Your task to perform on an android device: What's the weather going to be this weekend? Image 0: 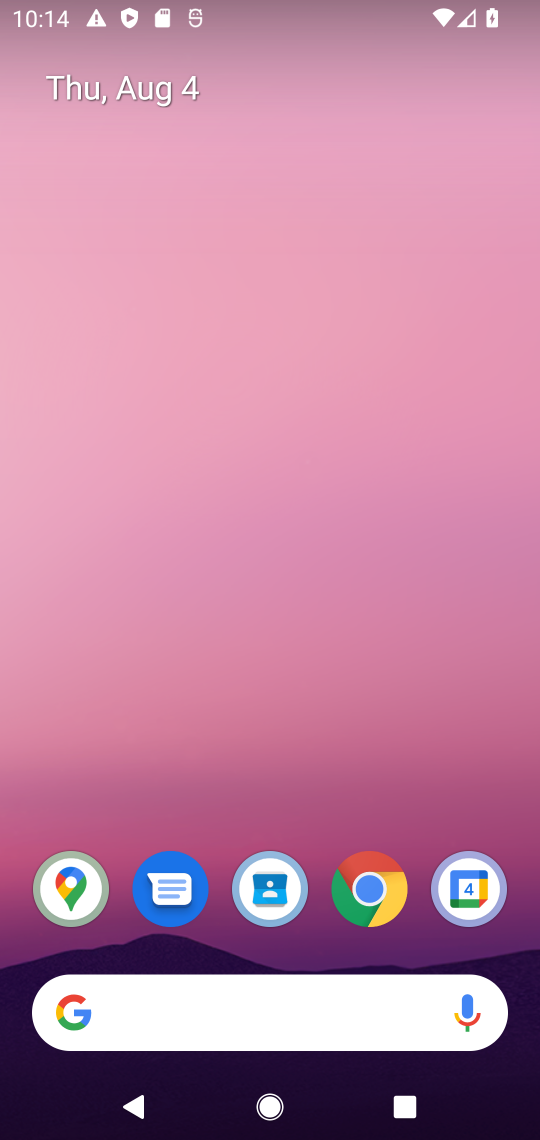
Step 0: click (256, 1002)
Your task to perform on an android device: What's the weather going to be this weekend? Image 1: 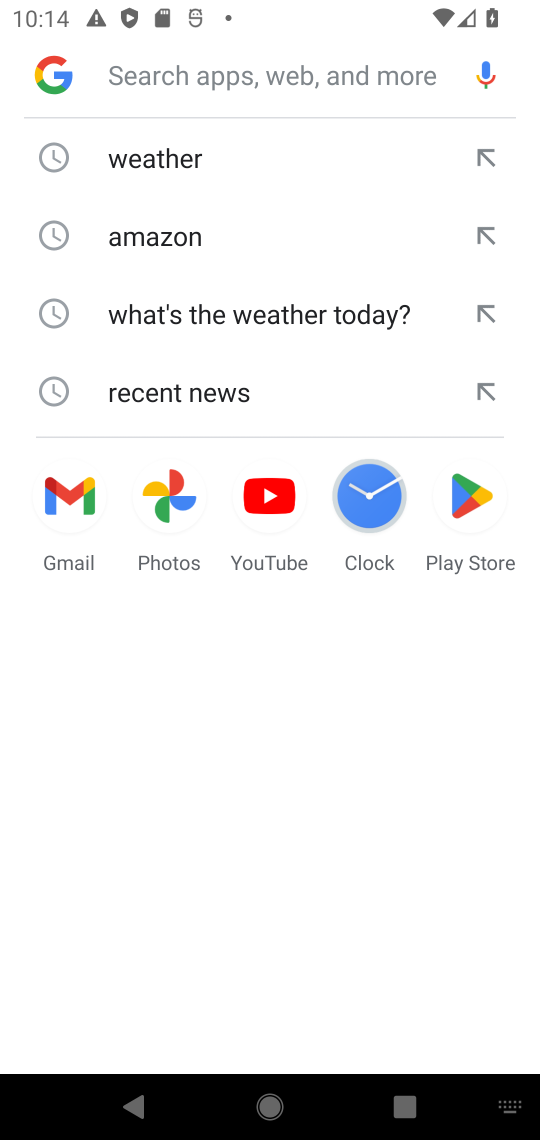
Step 1: click (195, 166)
Your task to perform on an android device: What's the weather going to be this weekend? Image 2: 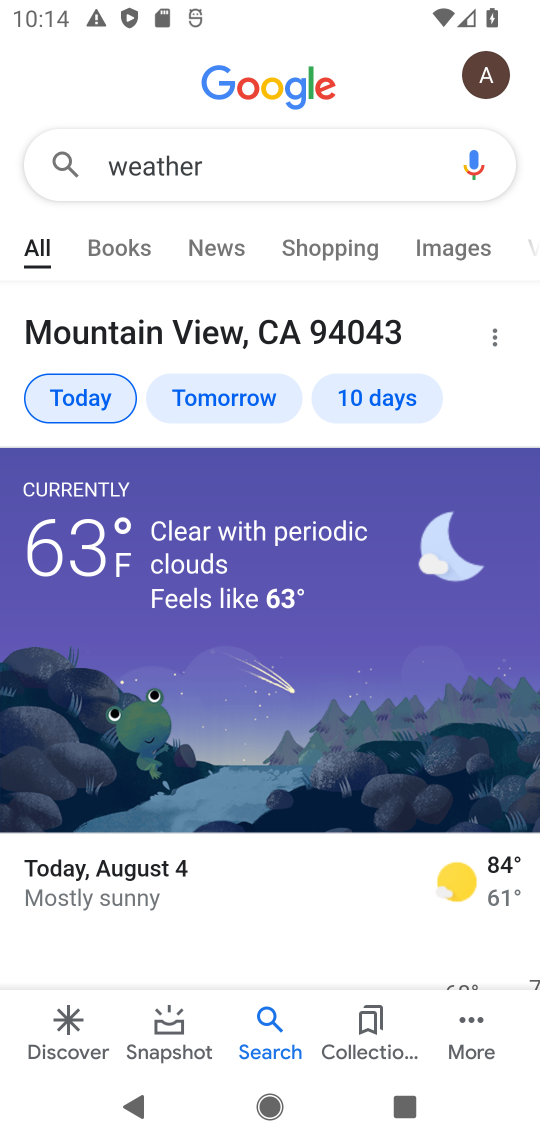
Step 2: click (389, 398)
Your task to perform on an android device: What's the weather going to be this weekend? Image 3: 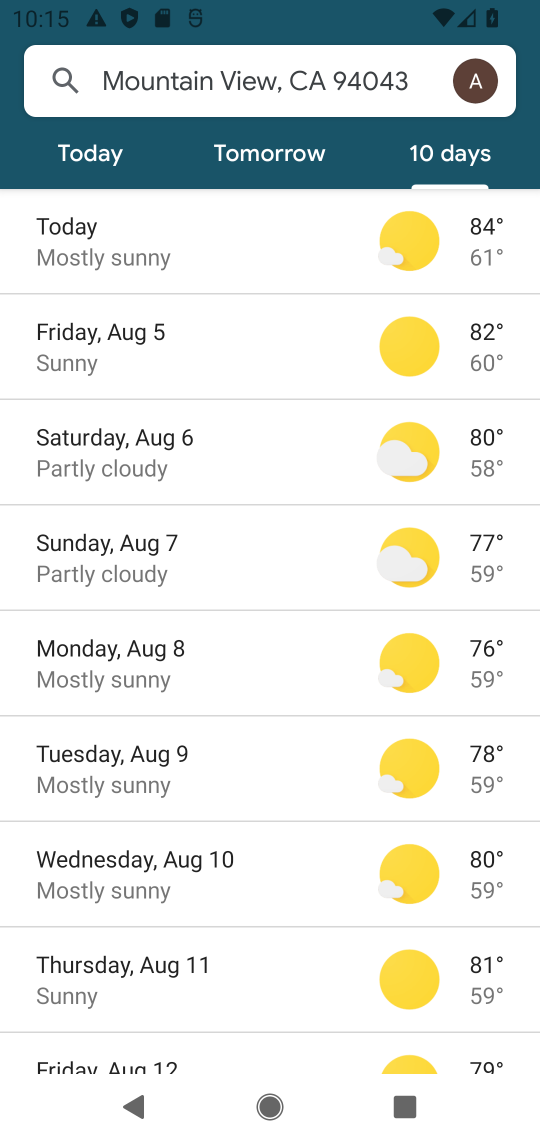
Step 3: drag from (254, 808) to (245, 614)
Your task to perform on an android device: What's the weather going to be this weekend? Image 4: 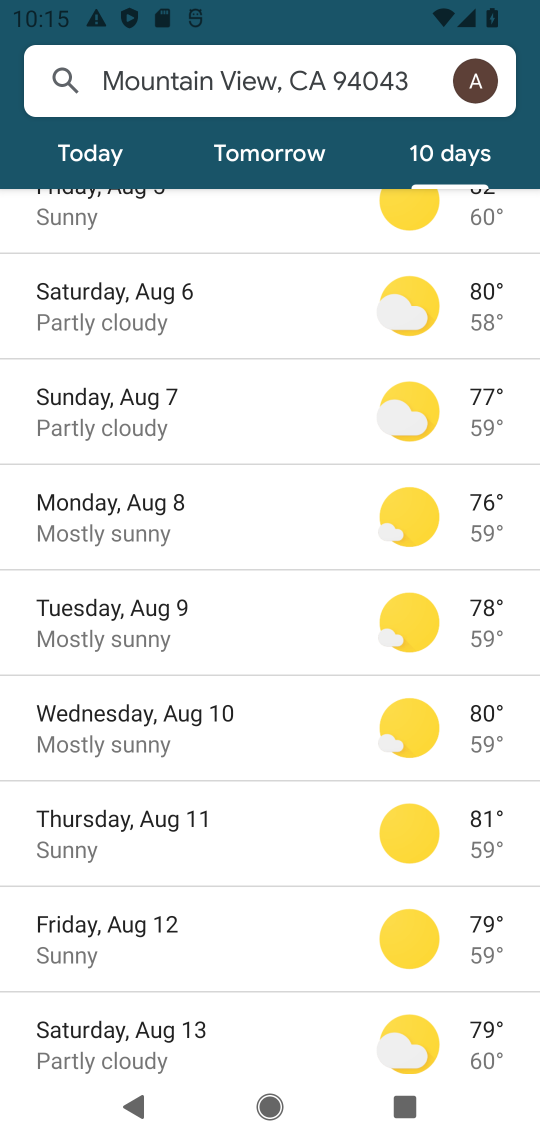
Step 4: drag from (248, 826) to (268, 558)
Your task to perform on an android device: What's the weather going to be this weekend? Image 5: 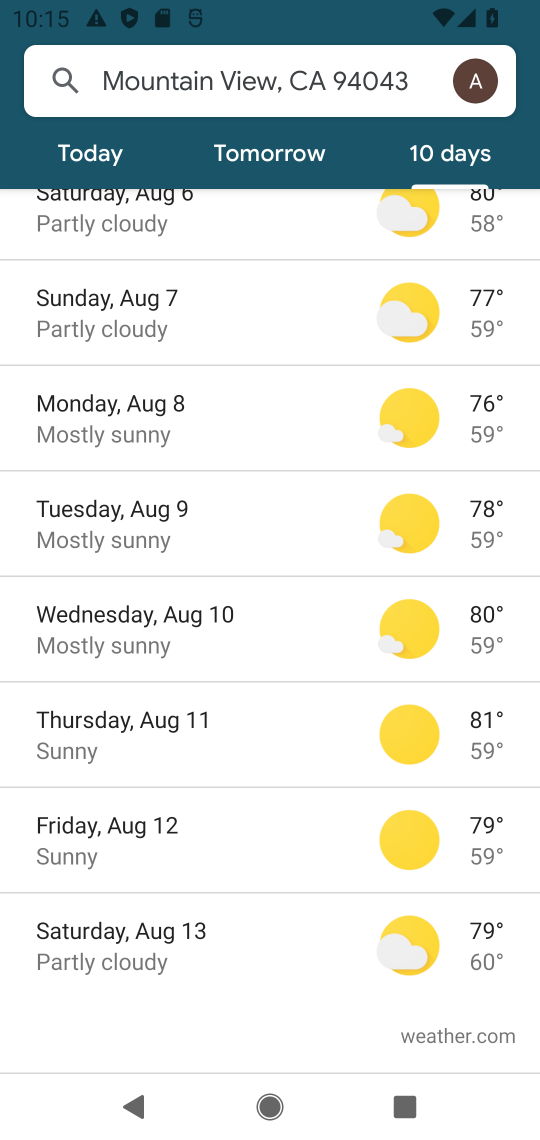
Step 5: click (209, 313)
Your task to perform on an android device: What's the weather going to be this weekend? Image 6: 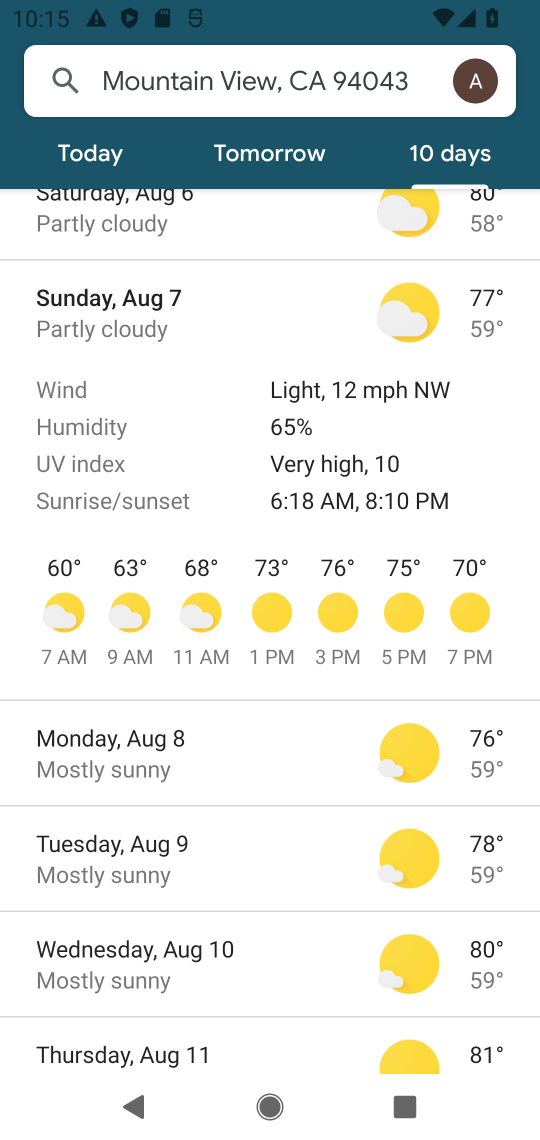
Step 6: task complete